Your task to perform on an android device: Open eBay Image 0: 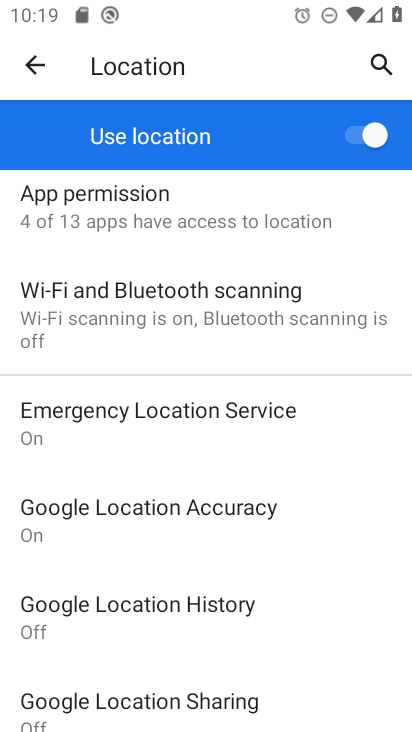
Step 0: press home button
Your task to perform on an android device: Open eBay Image 1: 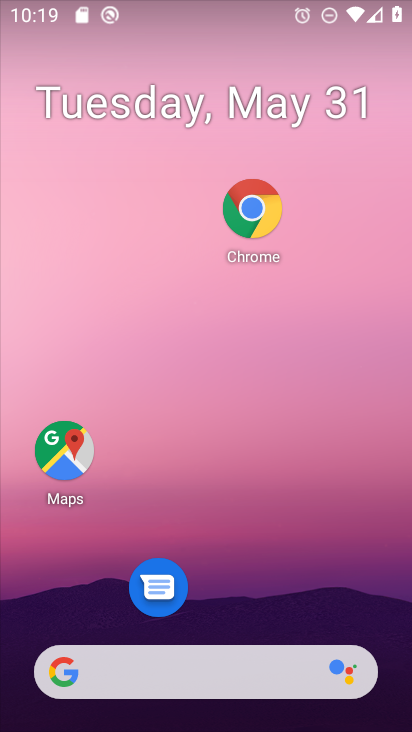
Step 1: click (250, 203)
Your task to perform on an android device: Open eBay Image 2: 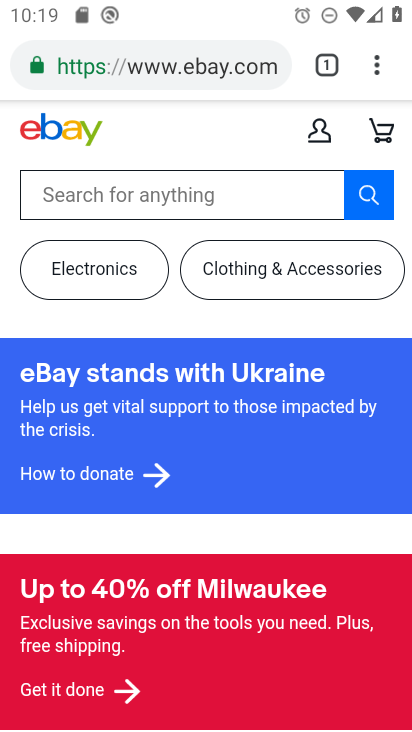
Step 2: click (322, 57)
Your task to perform on an android device: Open eBay Image 3: 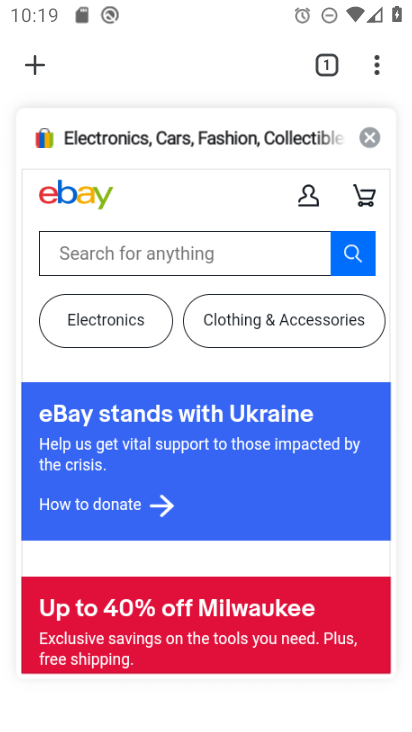
Step 3: click (259, 263)
Your task to perform on an android device: Open eBay Image 4: 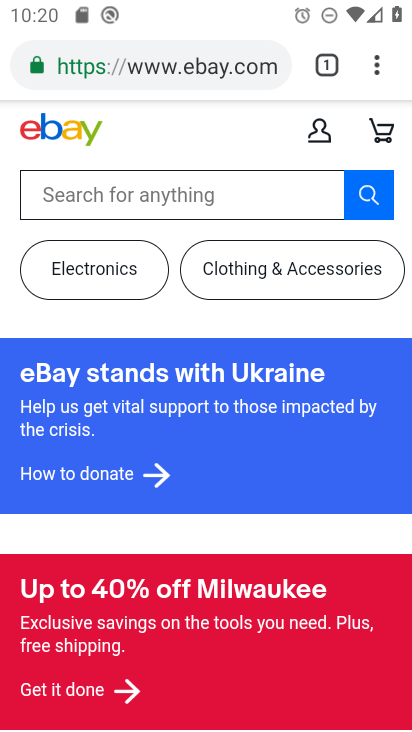
Step 4: task complete